Your task to perform on an android device: change the clock display to digital Image 0: 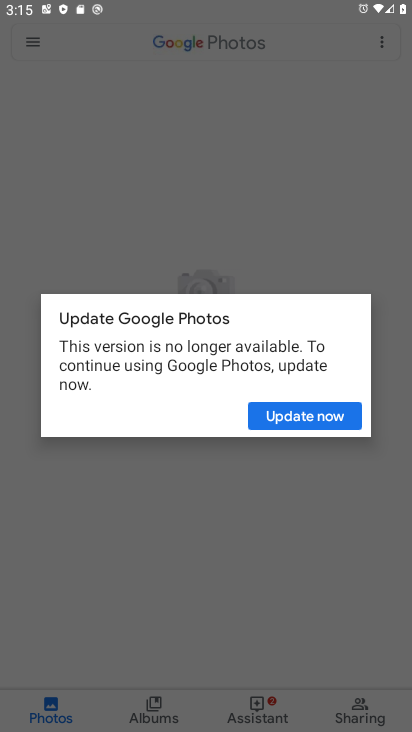
Step 0: press home button
Your task to perform on an android device: change the clock display to digital Image 1: 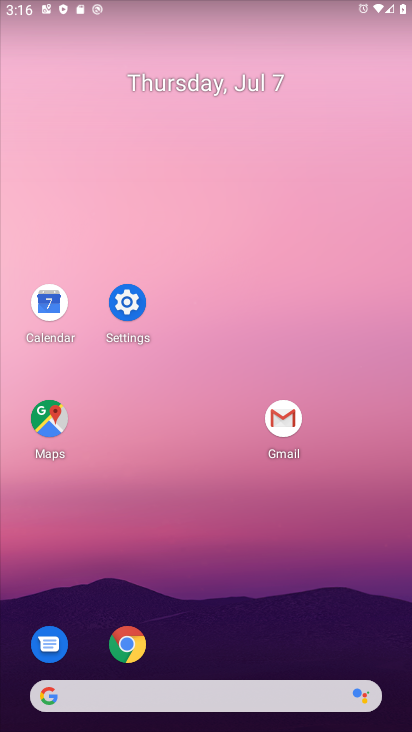
Step 1: drag from (392, 569) to (396, 171)
Your task to perform on an android device: change the clock display to digital Image 2: 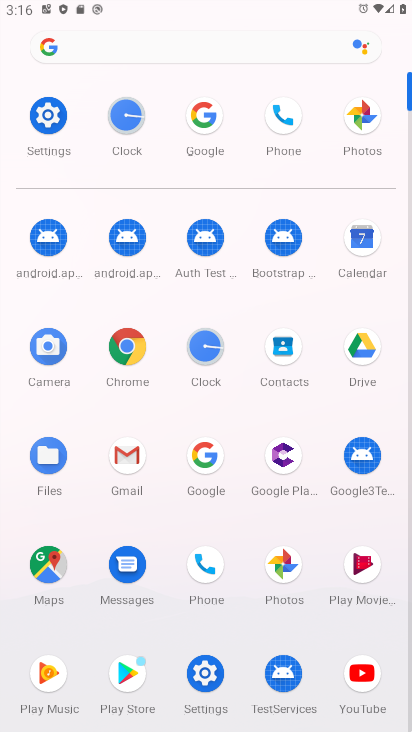
Step 2: click (193, 359)
Your task to perform on an android device: change the clock display to digital Image 3: 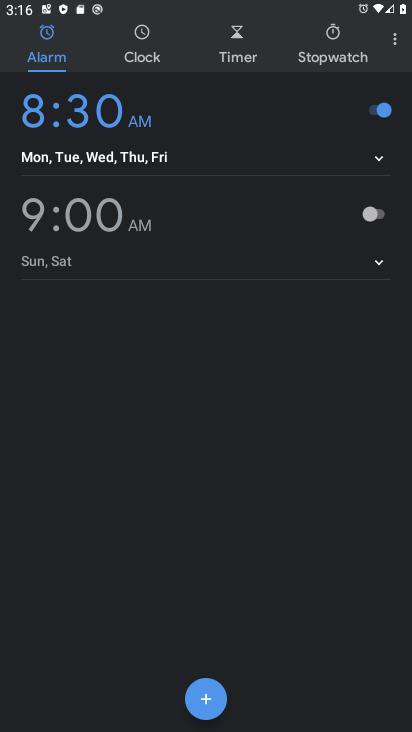
Step 3: click (393, 36)
Your task to perform on an android device: change the clock display to digital Image 4: 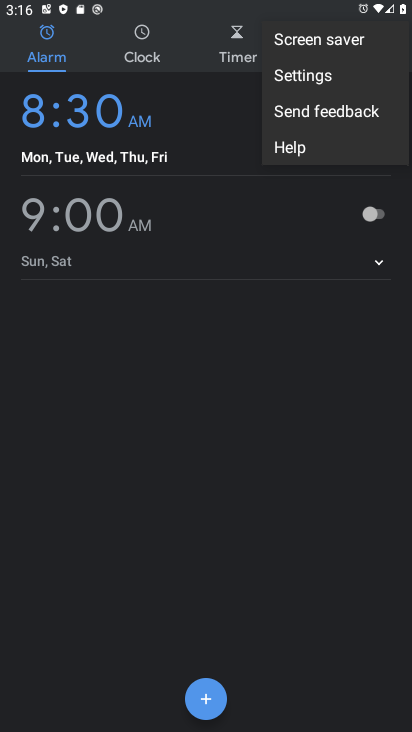
Step 4: click (319, 82)
Your task to perform on an android device: change the clock display to digital Image 5: 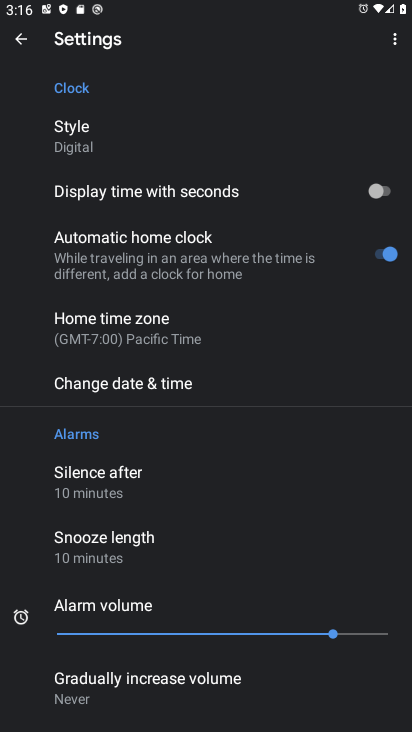
Step 5: click (78, 138)
Your task to perform on an android device: change the clock display to digital Image 6: 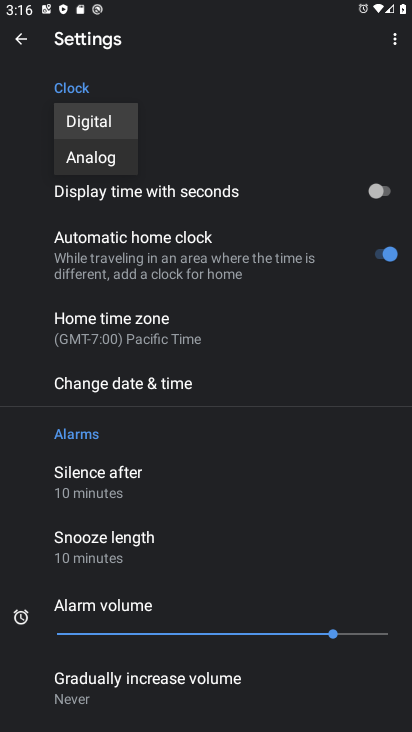
Step 6: click (102, 126)
Your task to perform on an android device: change the clock display to digital Image 7: 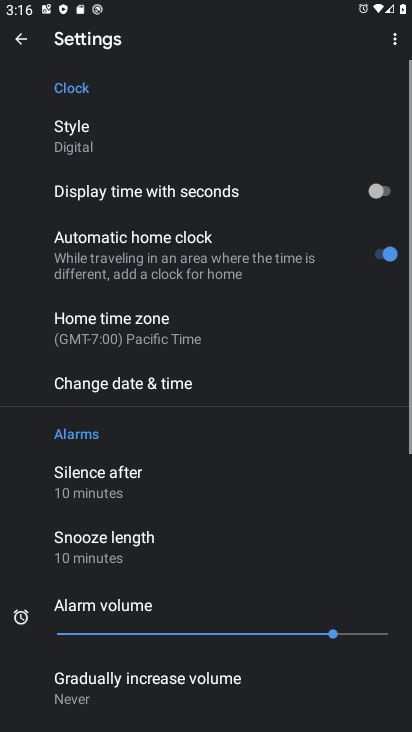
Step 7: task complete